Your task to perform on an android device: turn on location history Image 0: 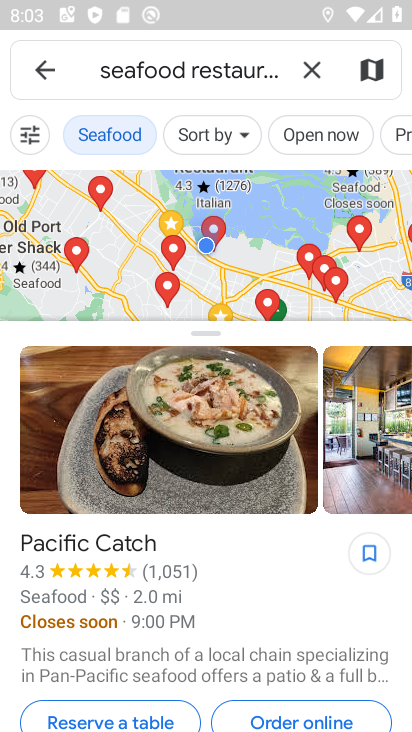
Step 0: click (305, 80)
Your task to perform on an android device: turn on location history Image 1: 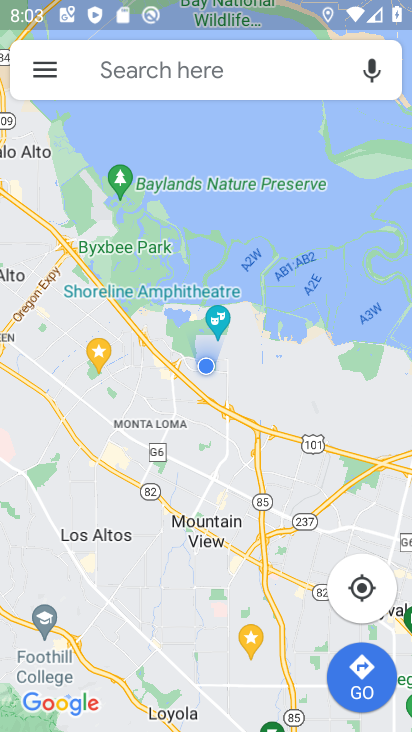
Step 1: click (28, 72)
Your task to perform on an android device: turn on location history Image 2: 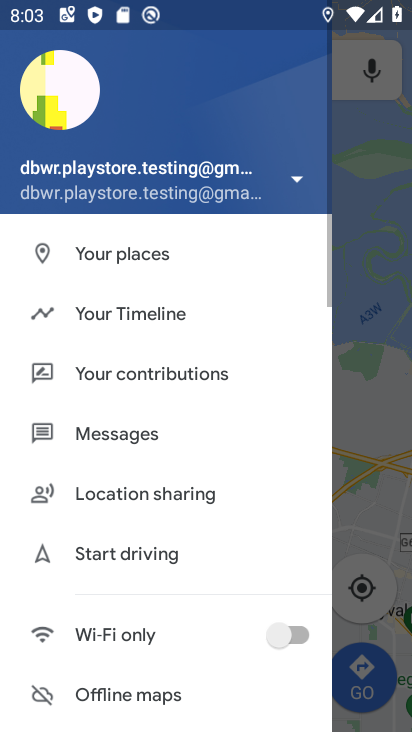
Step 2: click (152, 317)
Your task to perform on an android device: turn on location history Image 3: 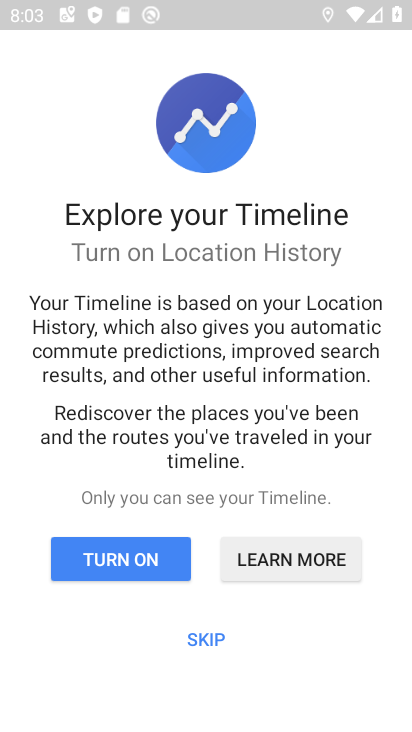
Step 3: click (213, 634)
Your task to perform on an android device: turn on location history Image 4: 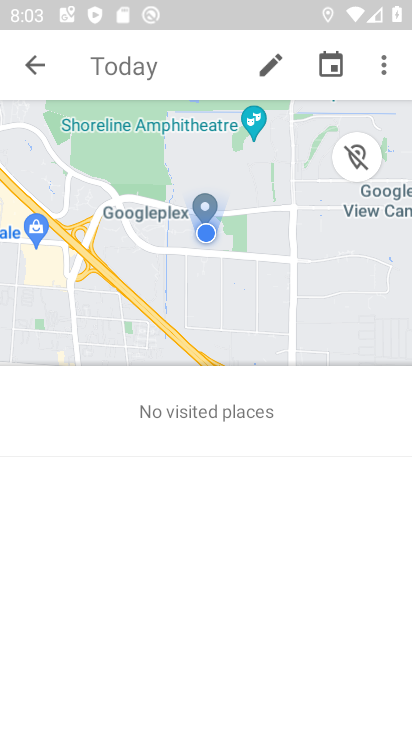
Step 4: click (378, 55)
Your task to perform on an android device: turn on location history Image 5: 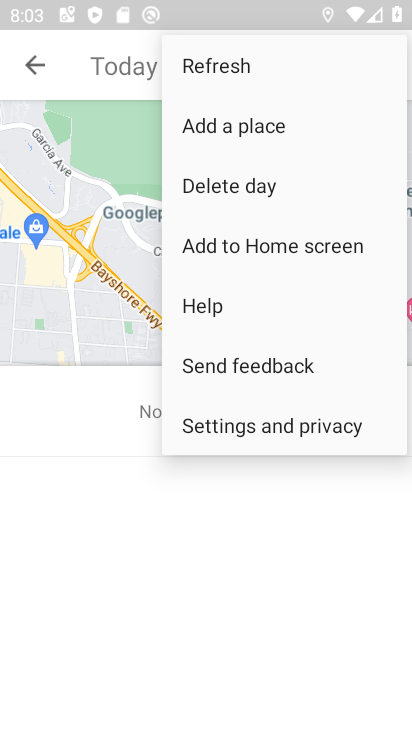
Step 5: click (335, 432)
Your task to perform on an android device: turn on location history Image 6: 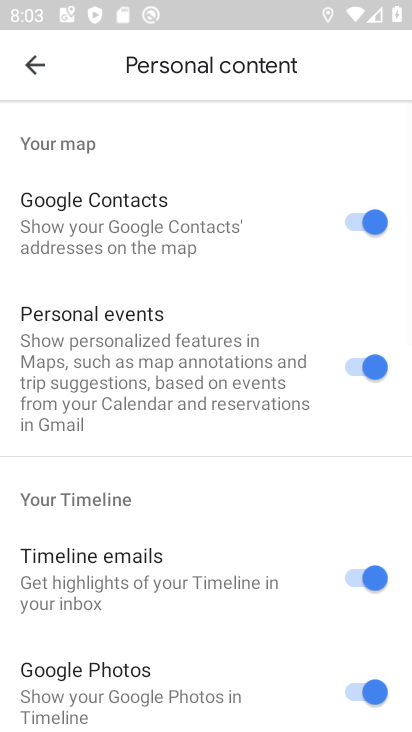
Step 6: drag from (233, 596) to (243, 129)
Your task to perform on an android device: turn on location history Image 7: 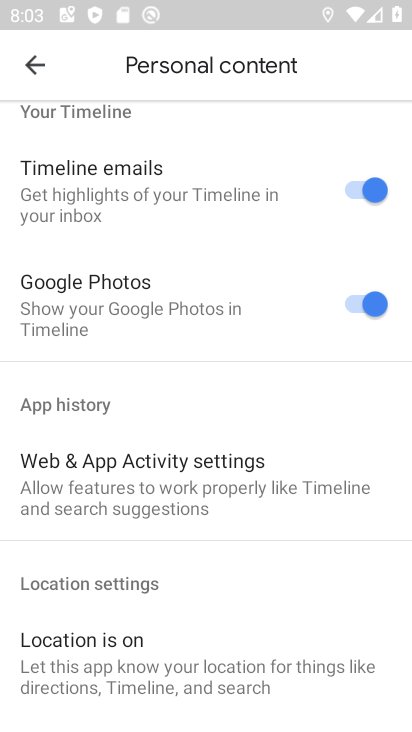
Step 7: drag from (166, 563) to (253, 32)
Your task to perform on an android device: turn on location history Image 8: 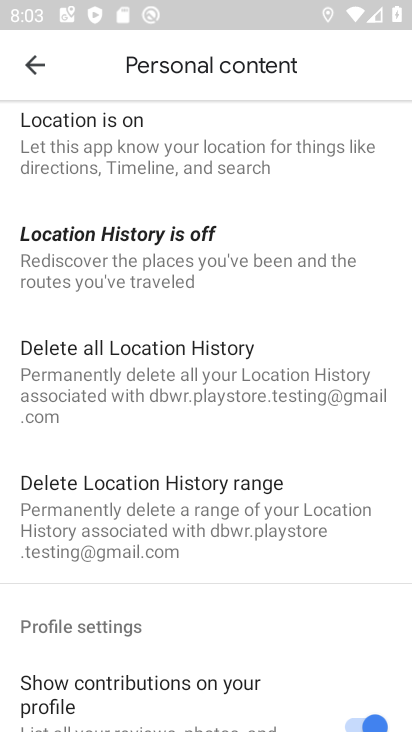
Step 8: click (196, 259)
Your task to perform on an android device: turn on location history Image 9: 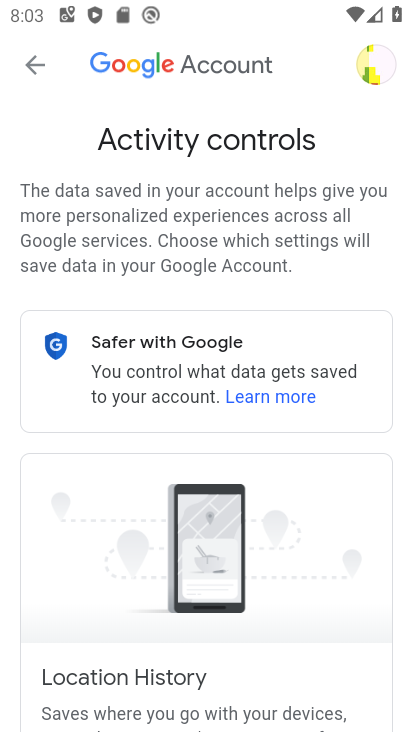
Step 9: drag from (288, 532) to (344, 22)
Your task to perform on an android device: turn on location history Image 10: 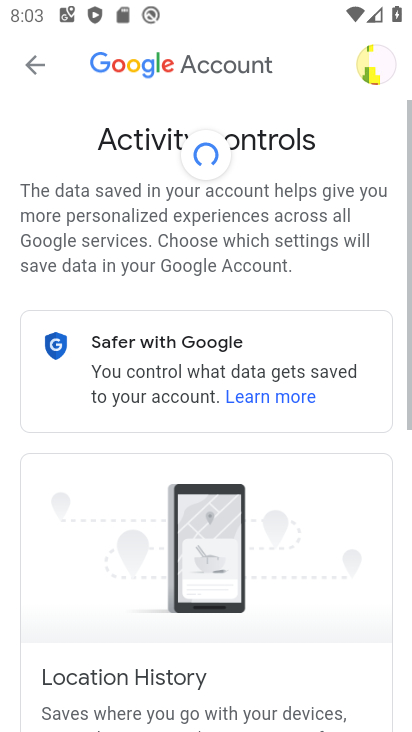
Step 10: click (339, 401)
Your task to perform on an android device: turn on location history Image 11: 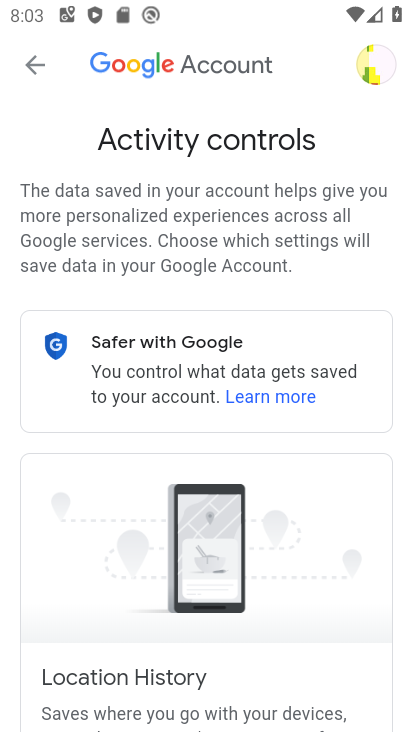
Step 11: drag from (264, 529) to (368, 25)
Your task to perform on an android device: turn on location history Image 12: 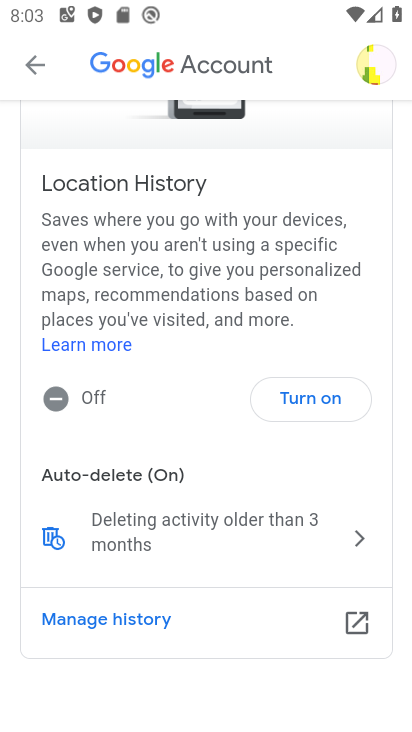
Step 12: click (337, 389)
Your task to perform on an android device: turn on location history Image 13: 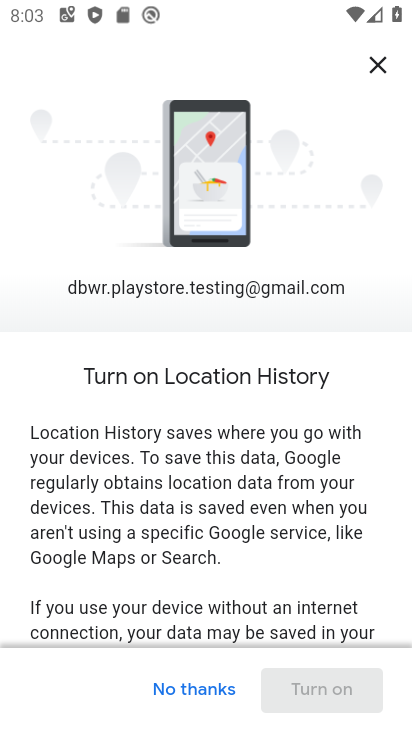
Step 13: drag from (274, 551) to (239, 53)
Your task to perform on an android device: turn on location history Image 14: 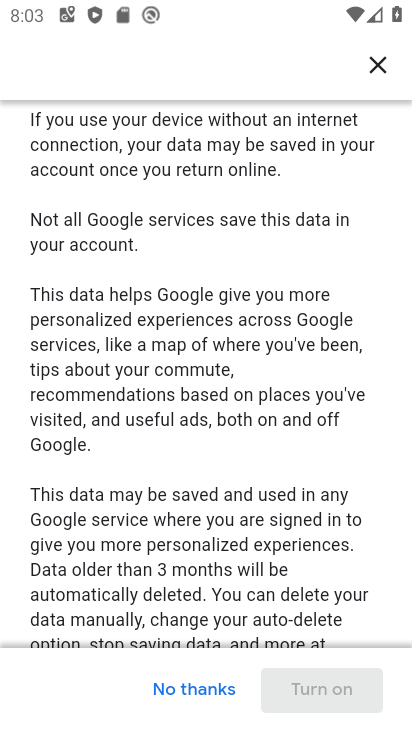
Step 14: drag from (246, 515) to (395, 319)
Your task to perform on an android device: turn on location history Image 15: 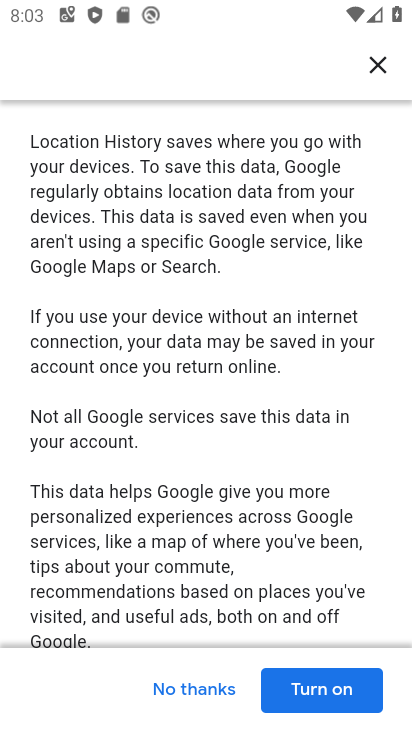
Step 15: click (342, 682)
Your task to perform on an android device: turn on location history Image 16: 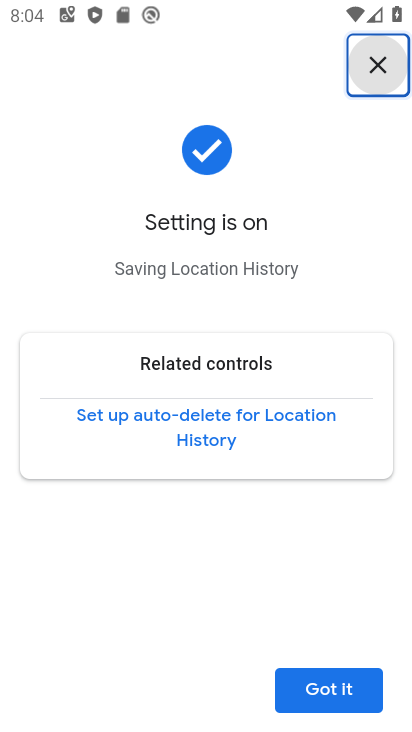
Step 16: task complete